Your task to perform on an android device: open app "Microsoft Outlook" Image 0: 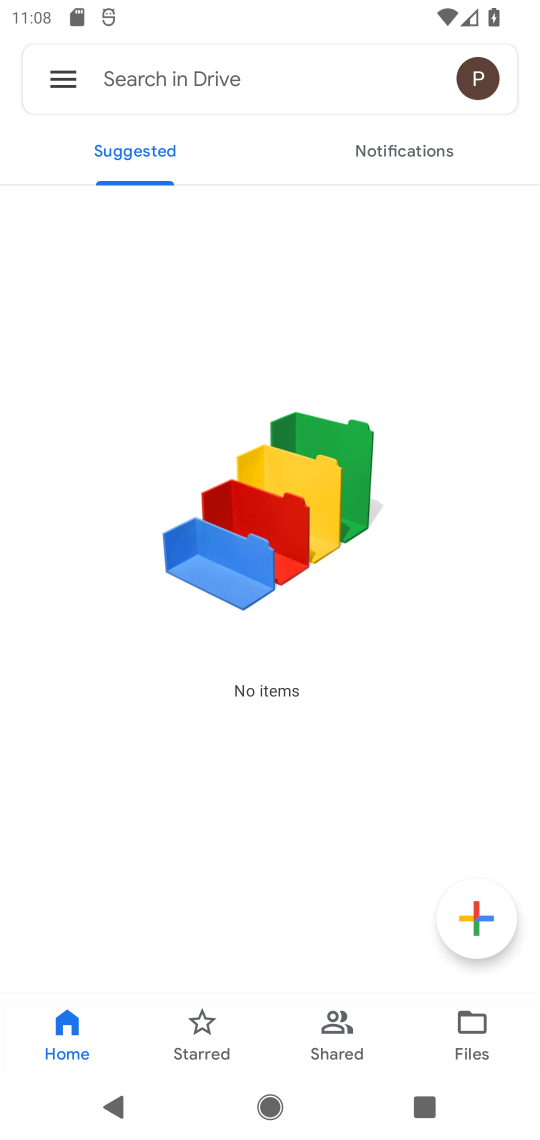
Step 0: press home button
Your task to perform on an android device: open app "Microsoft Outlook" Image 1: 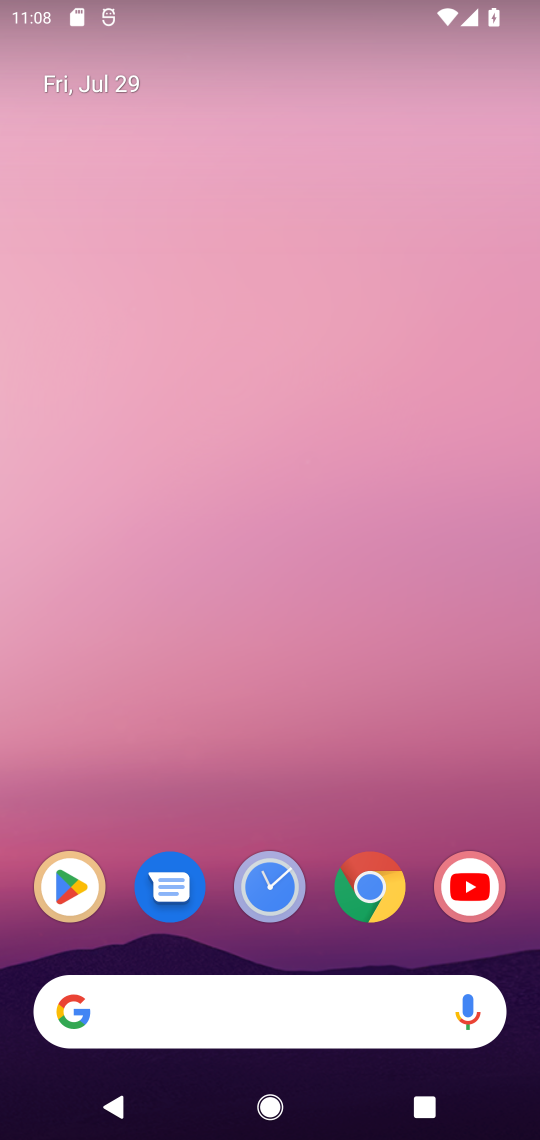
Step 1: drag from (234, 1018) to (293, 220)
Your task to perform on an android device: open app "Microsoft Outlook" Image 2: 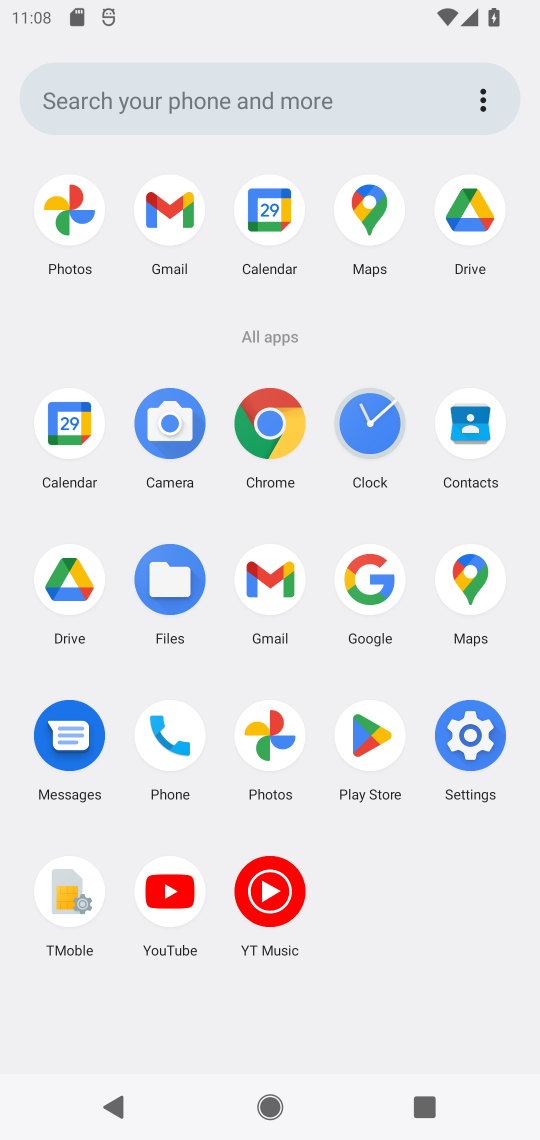
Step 2: click (364, 736)
Your task to perform on an android device: open app "Microsoft Outlook" Image 3: 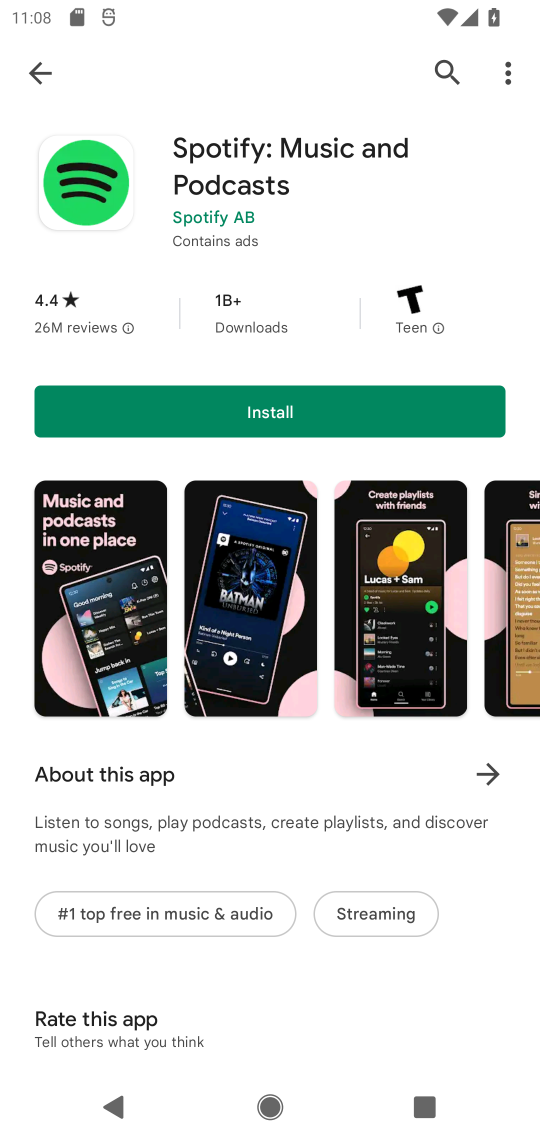
Step 3: click (442, 71)
Your task to perform on an android device: open app "Microsoft Outlook" Image 4: 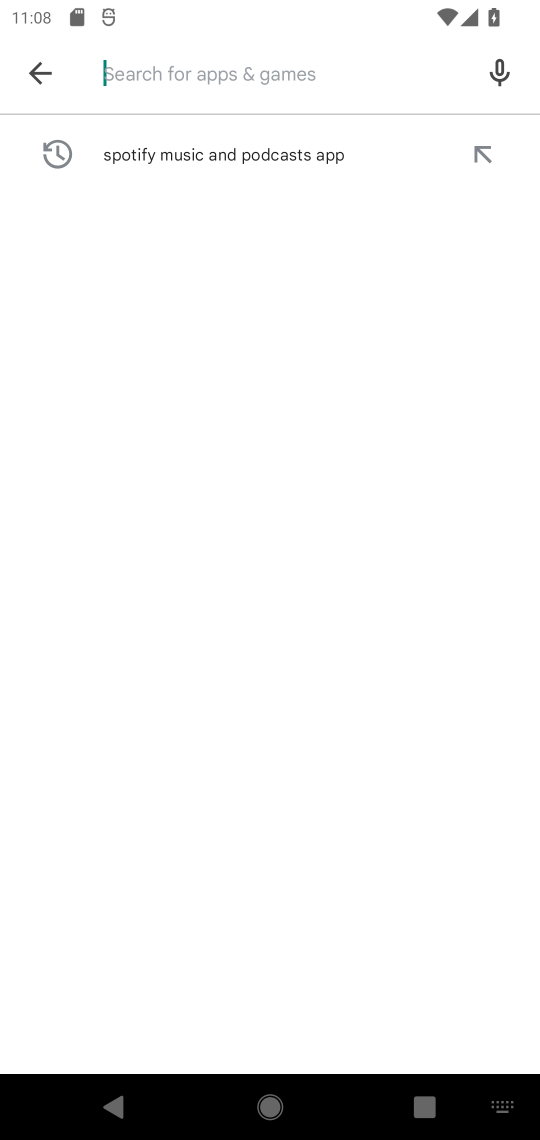
Step 4: click (269, 71)
Your task to perform on an android device: open app "Microsoft Outlook" Image 5: 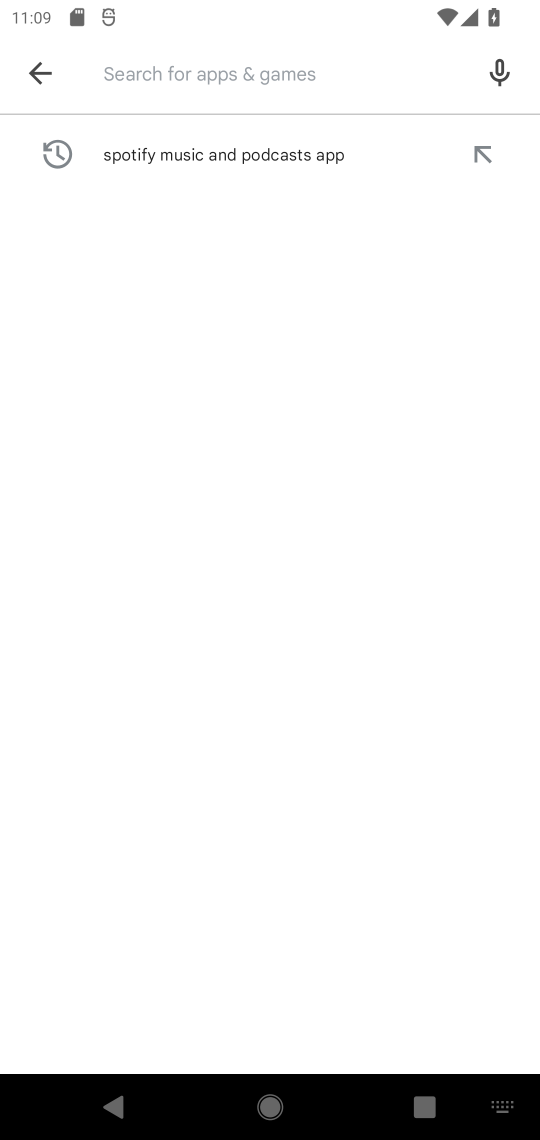
Step 5: type "Microsoft Outlook"
Your task to perform on an android device: open app "Microsoft Outlook" Image 6: 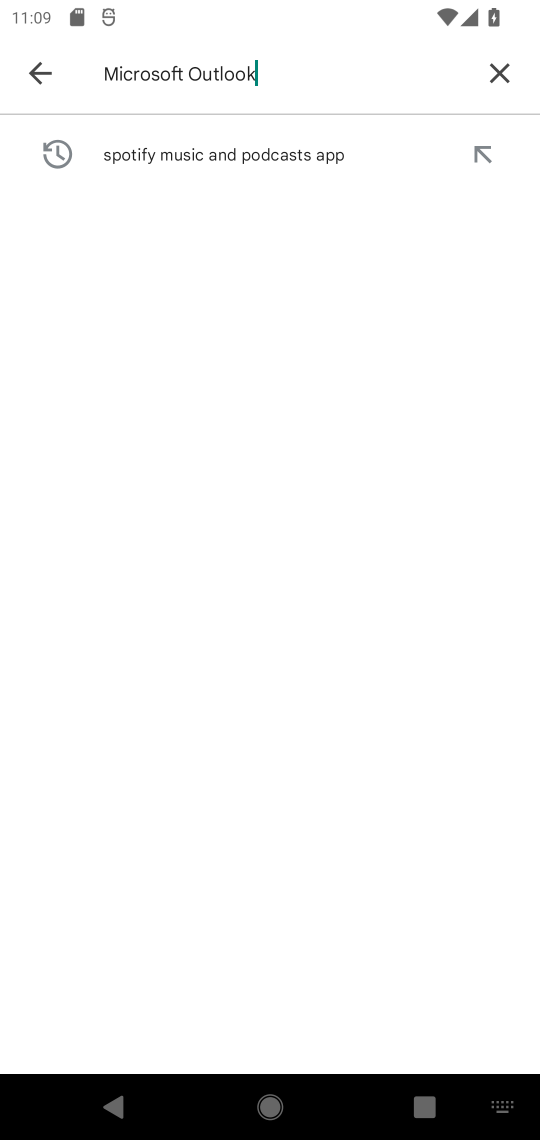
Step 6: type ""
Your task to perform on an android device: open app "Microsoft Outlook" Image 7: 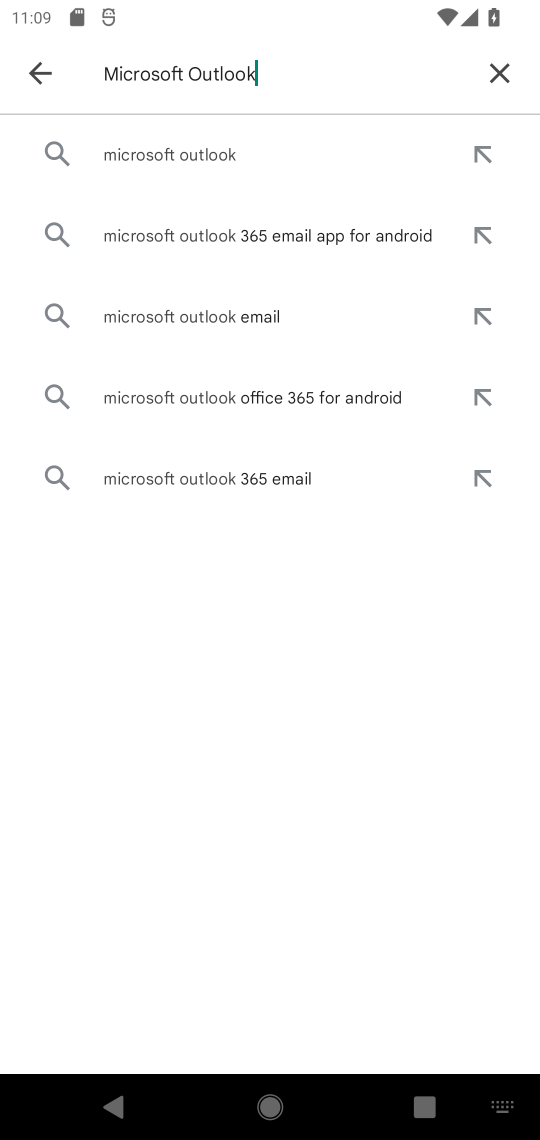
Step 7: click (222, 152)
Your task to perform on an android device: open app "Microsoft Outlook" Image 8: 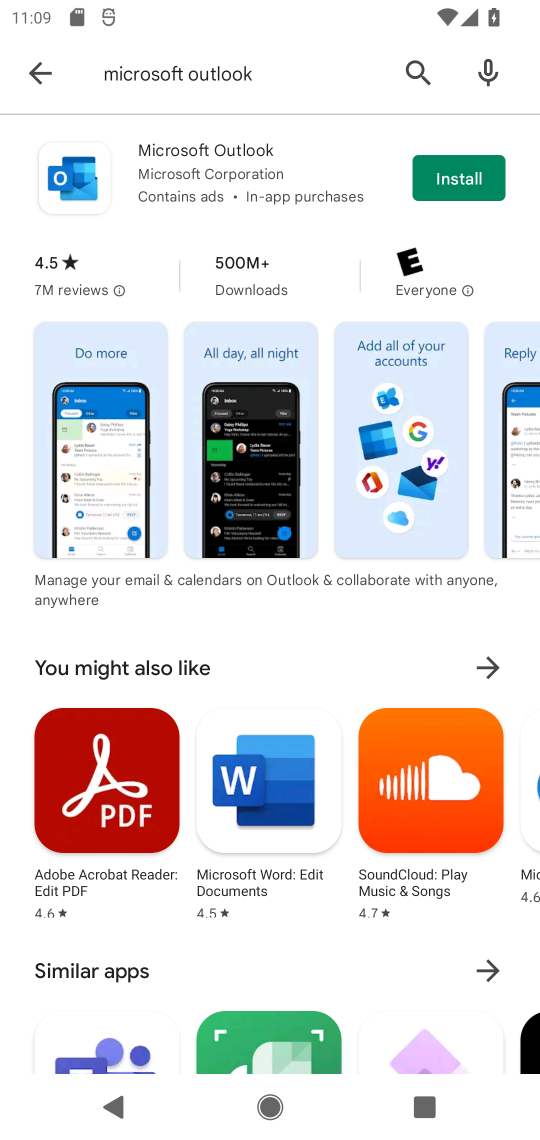
Step 8: task complete